Your task to perform on an android device: Go to Google Image 0: 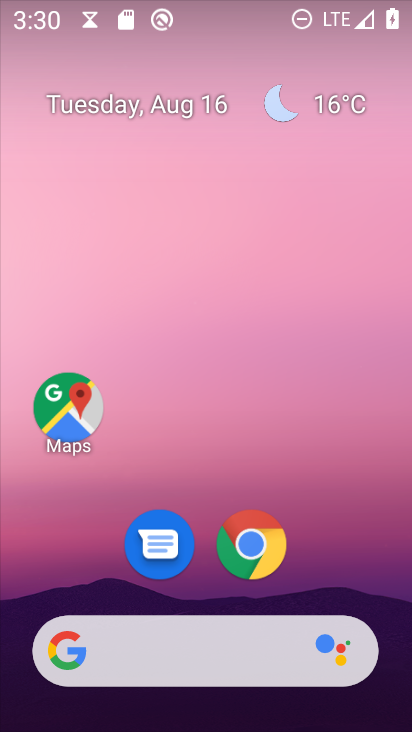
Step 0: drag from (172, 668) to (208, 133)
Your task to perform on an android device: Go to Google Image 1: 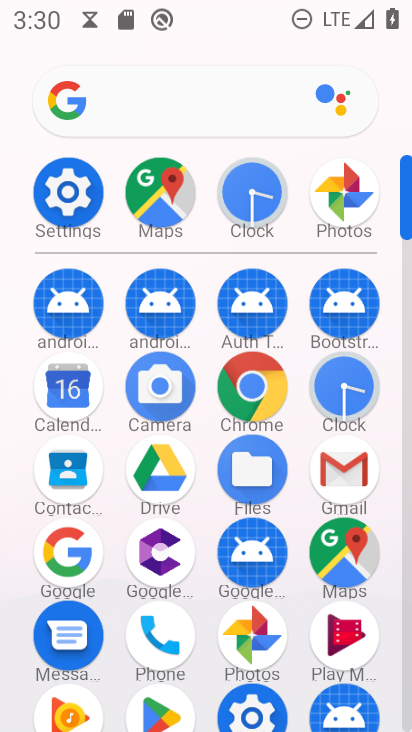
Step 1: click (64, 548)
Your task to perform on an android device: Go to Google Image 2: 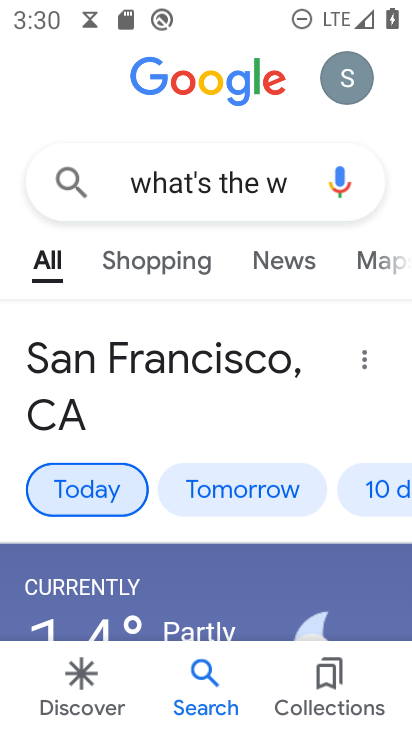
Step 2: task complete